Your task to perform on an android device: uninstall "LinkedIn" Image 0: 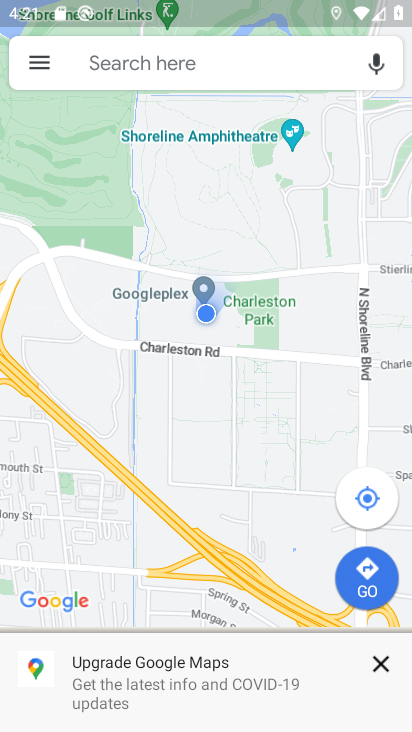
Step 0: press home button
Your task to perform on an android device: uninstall "LinkedIn" Image 1: 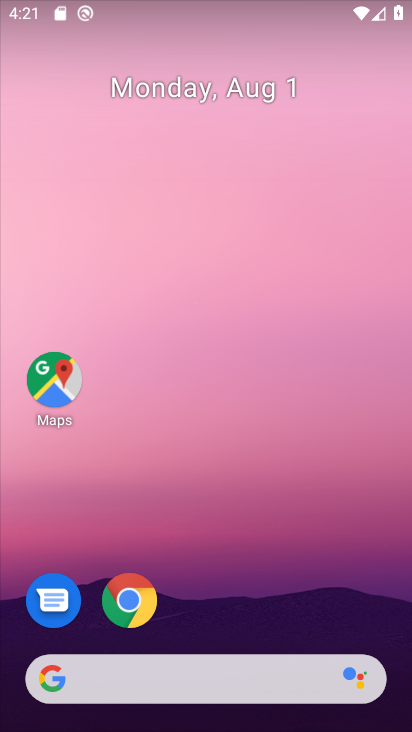
Step 1: drag from (307, 592) to (300, 62)
Your task to perform on an android device: uninstall "LinkedIn" Image 2: 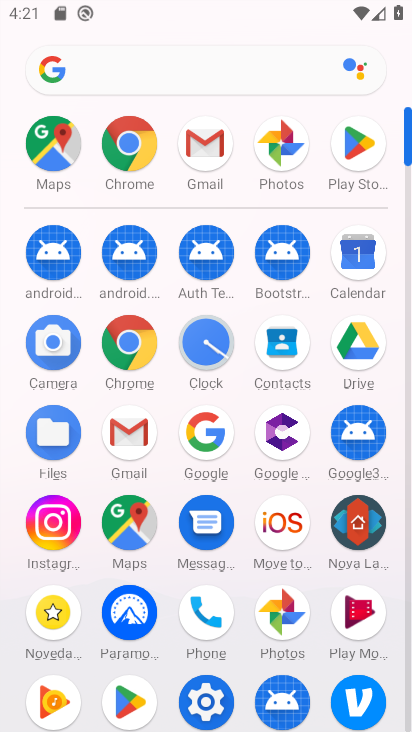
Step 2: click (359, 142)
Your task to perform on an android device: uninstall "LinkedIn" Image 3: 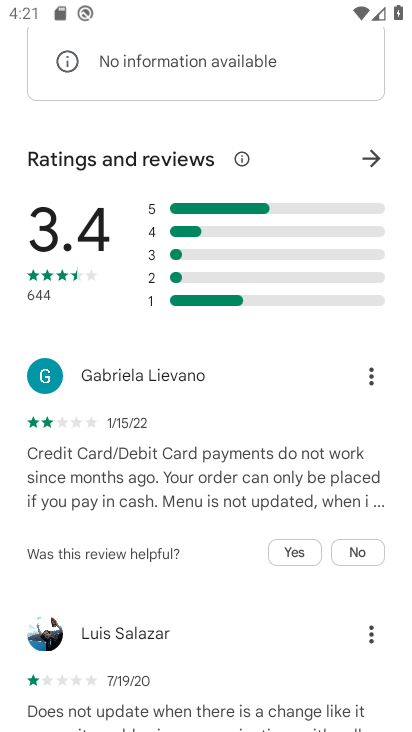
Step 3: click (241, 64)
Your task to perform on an android device: uninstall "LinkedIn" Image 4: 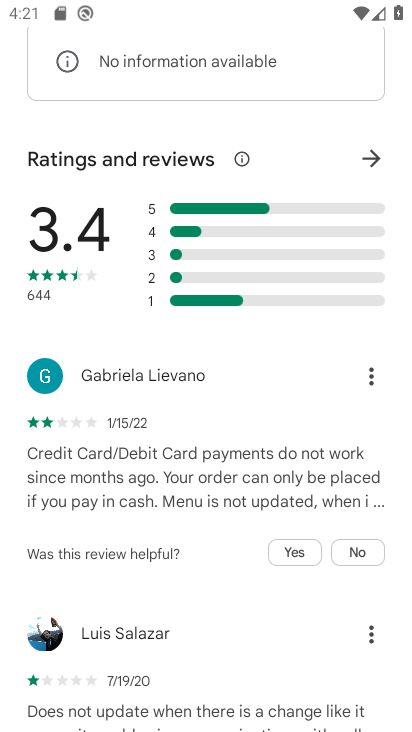
Step 4: drag from (337, 99) to (259, 652)
Your task to perform on an android device: uninstall "LinkedIn" Image 5: 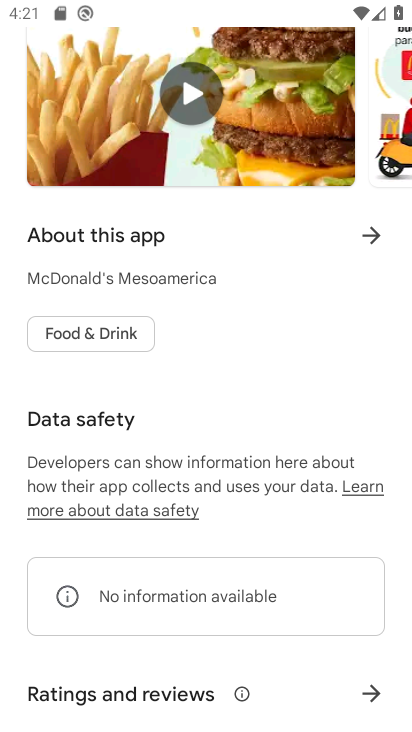
Step 5: drag from (286, 65) to (246, 640)
Your task to perform on an android device: uninstall "LinkedIn" Image 6: 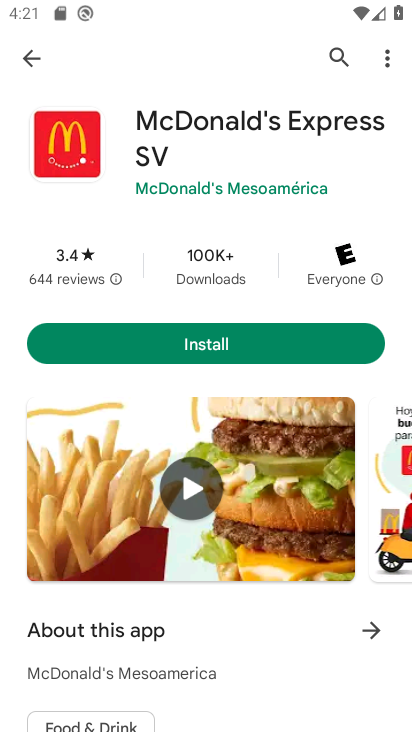
Step 6: click (342, 51)
Your task to perform on an android device: uninstall "LinkedIn" Image 7: 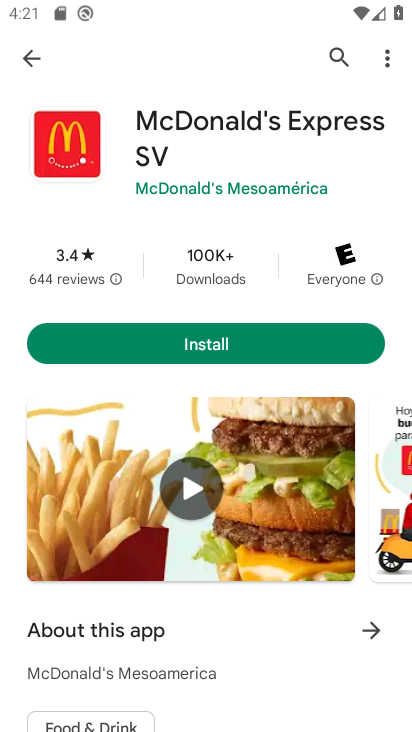
Step 7: click (338, 56)
Your task to perform on an android device: uninstall "LinkedIn" Image 8: 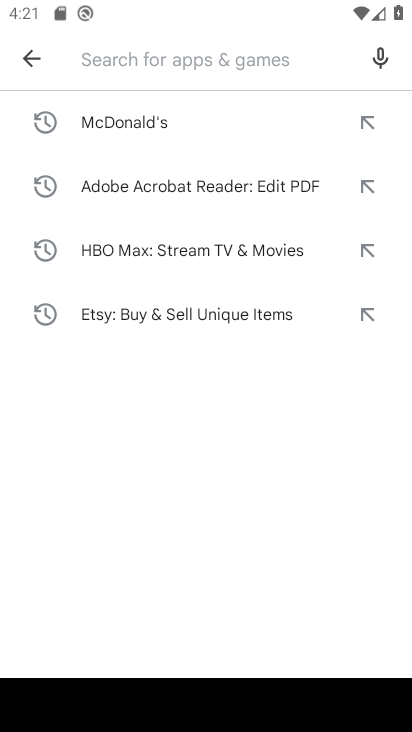
Step 8: type "Linkedln"
Your task to perform on an android device: uninstall "LinkedIn" Image 9: 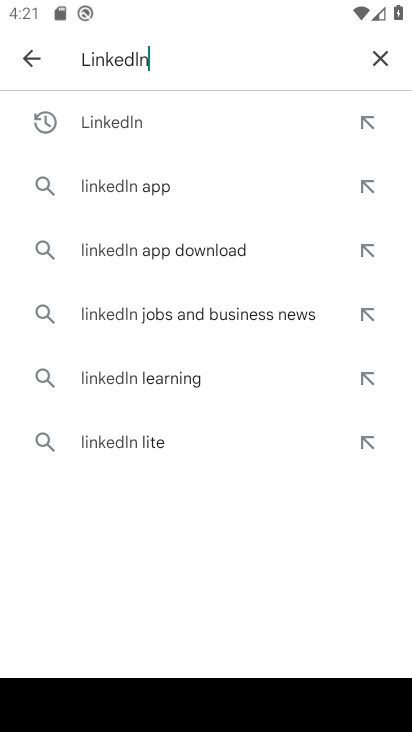
Step 9: press enter
Your task to perform on an android device: uninstall "LinkedIn" Image 10: 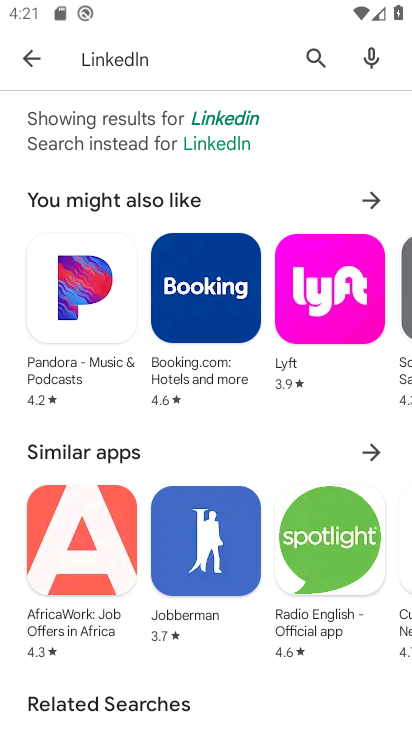
Step 10: click (246, 116)
Your task to perform on an android device: uninstall "LinkedIn" Image 11: 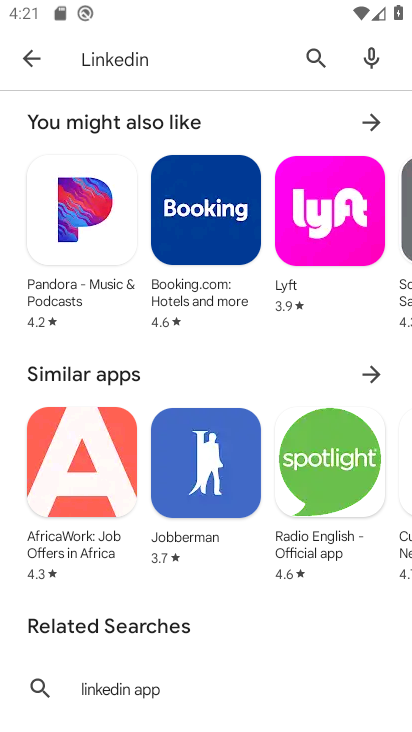
Step 11: task complete